Your task to perform on an android device: Open settings on Google Maps Image 0: 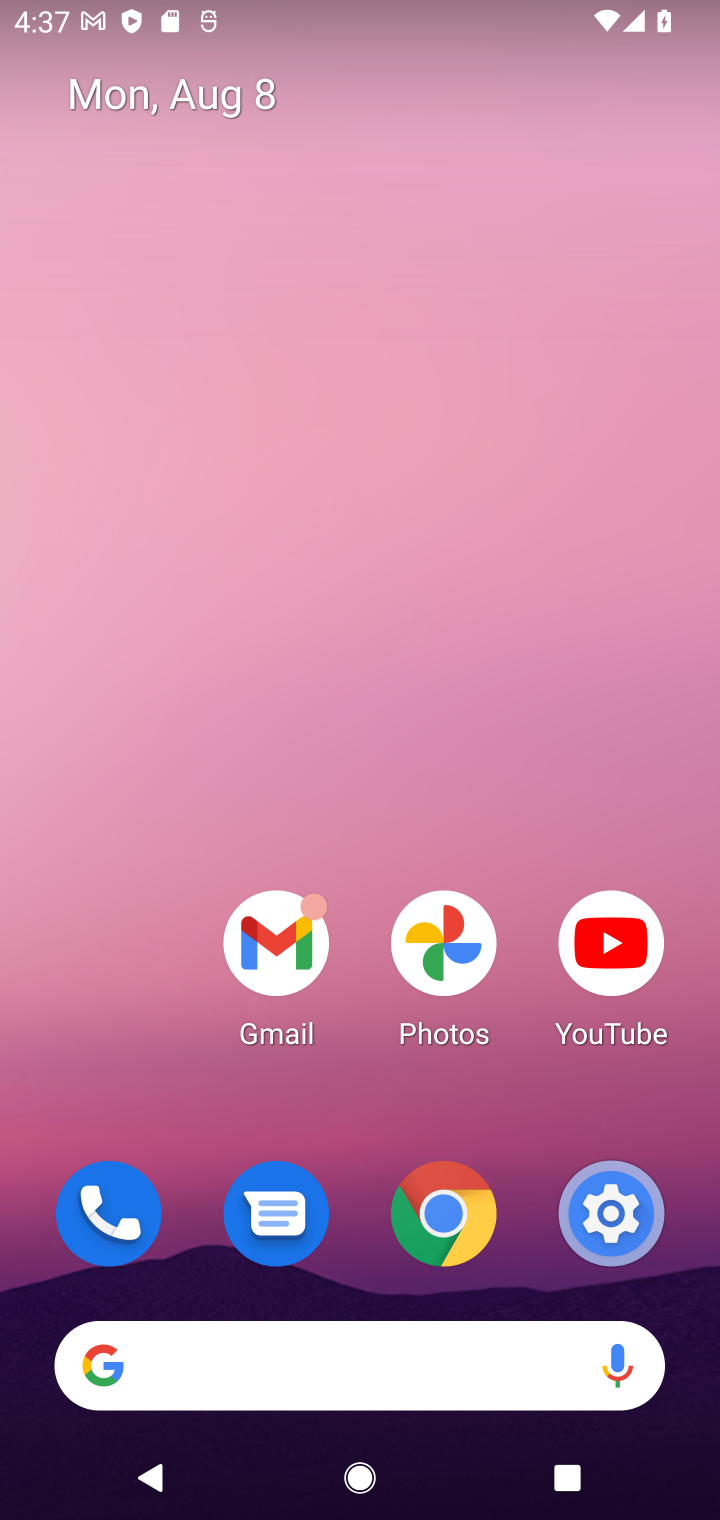
Step 0: drag from (301, 1113) to (267, 284)
Your task to perform on an android device: Open settings on Google Maps Image 1: 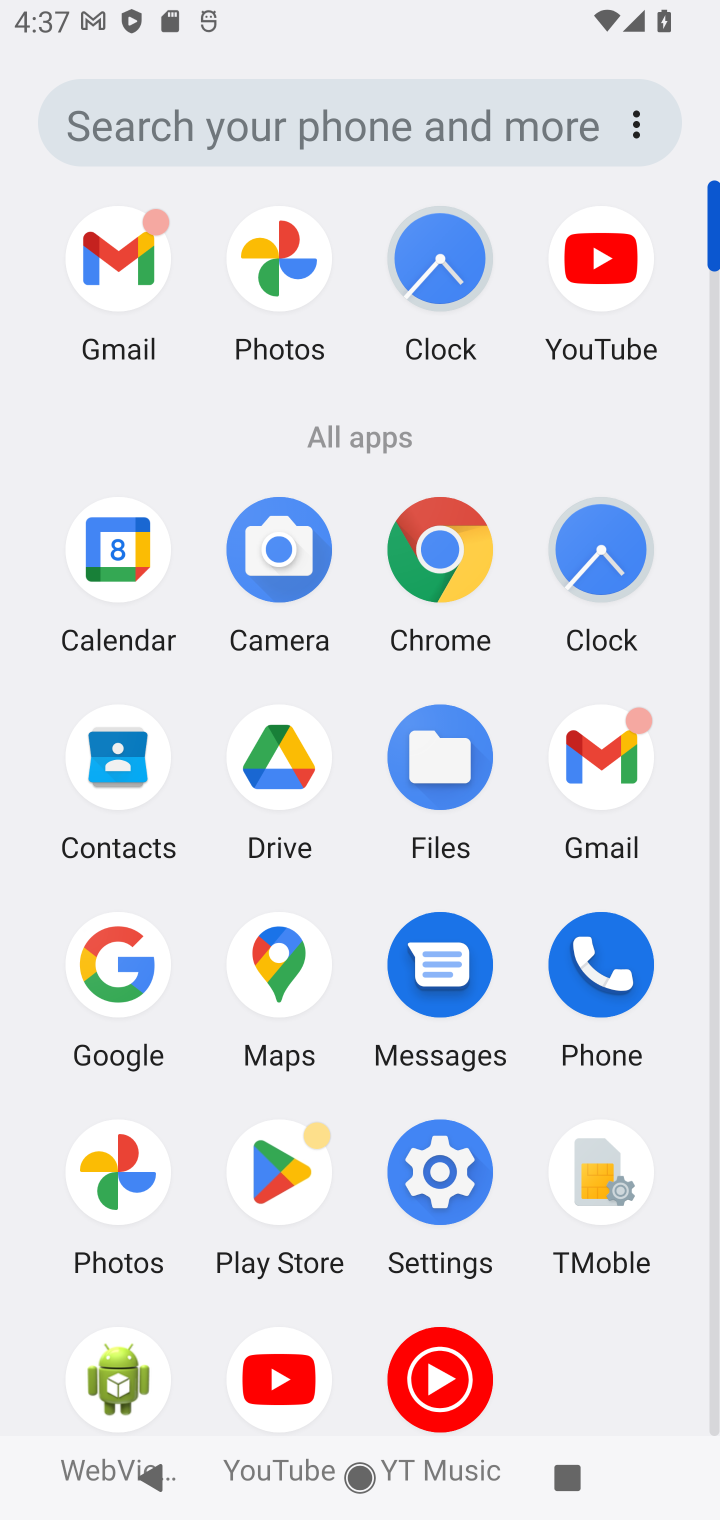
Step 1: click (270, 963)
Your task to perform on an android device: Open settings on Google Maps Image 2: 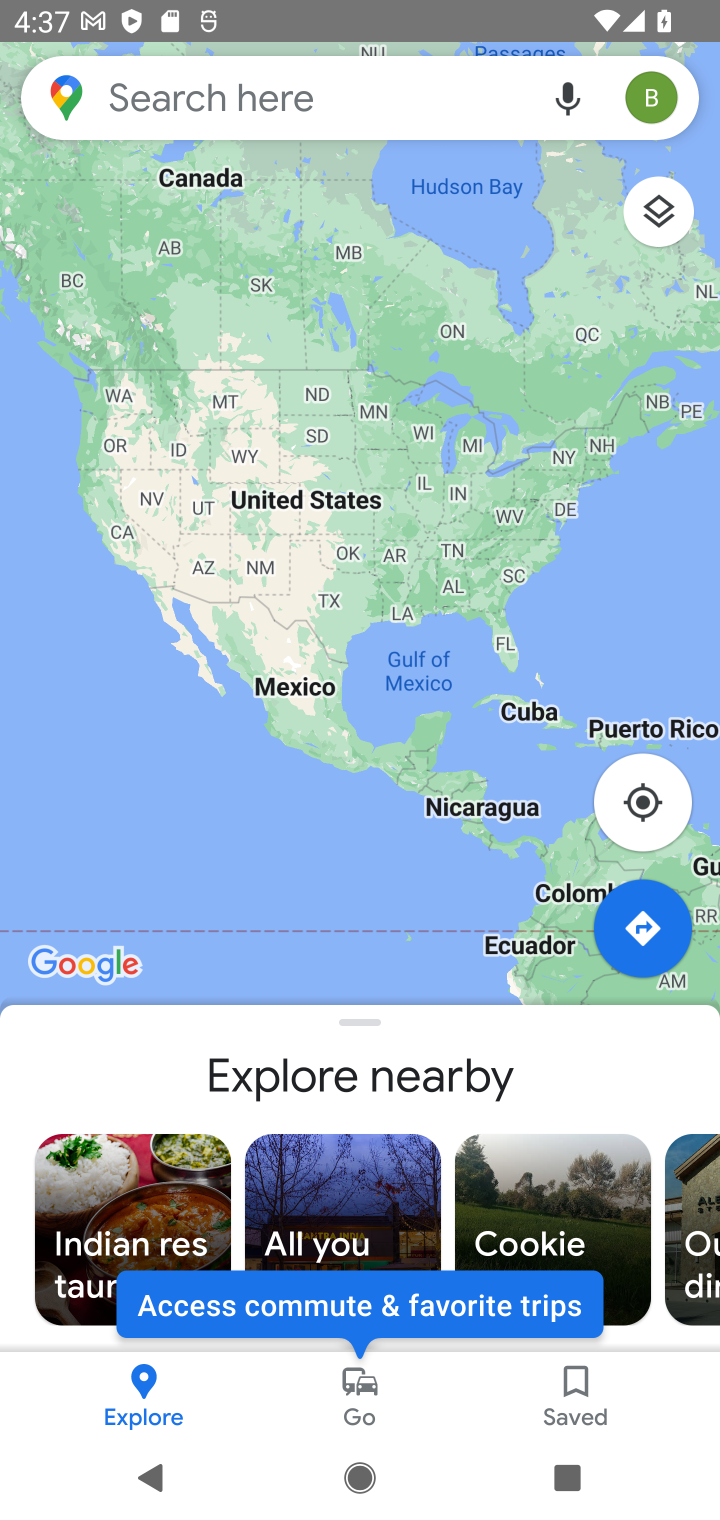
Step 2: click (656, 107)
Your task to perform on an android device: Open settings on Google Maps Image 3: 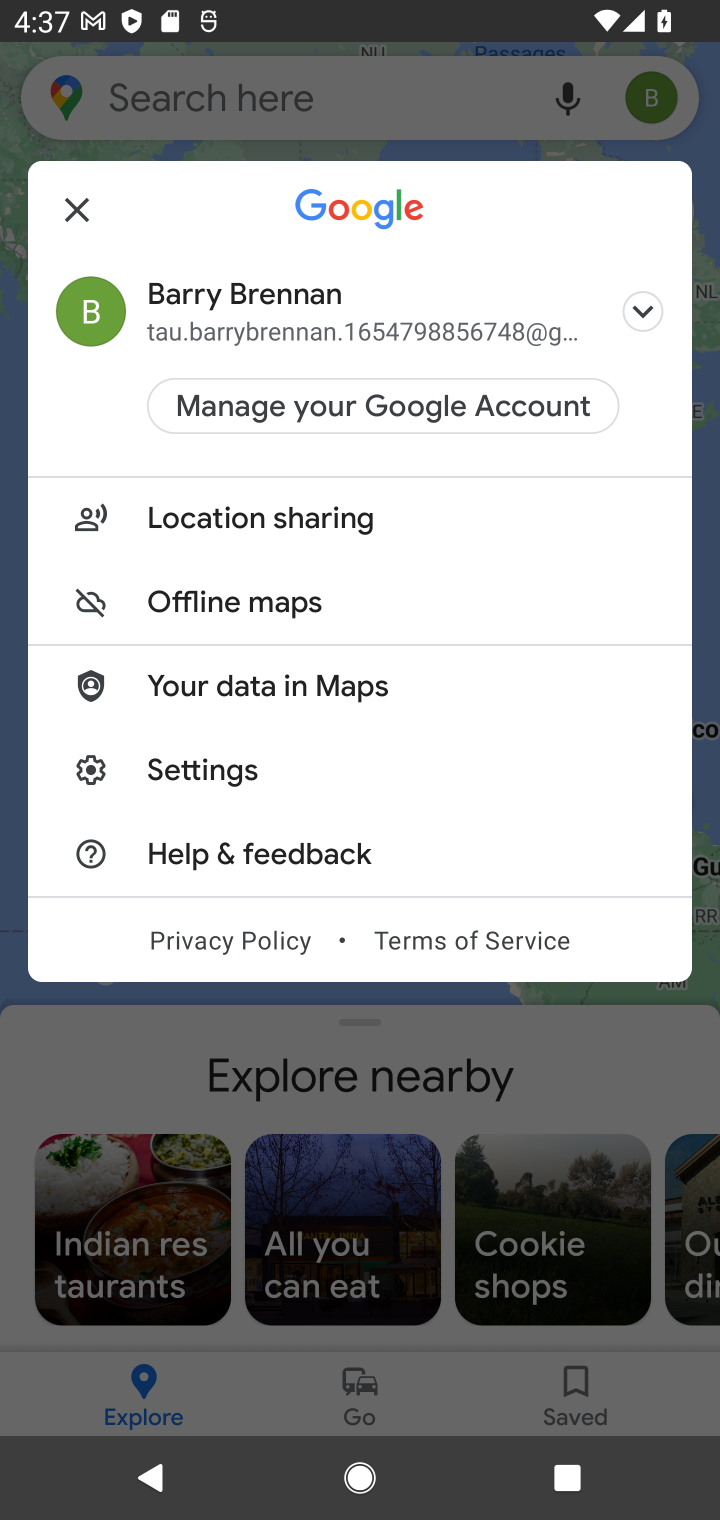
Step 3: click (229, 768)
Your task to perform on an android device: Open settings on Google Maps Image 4: 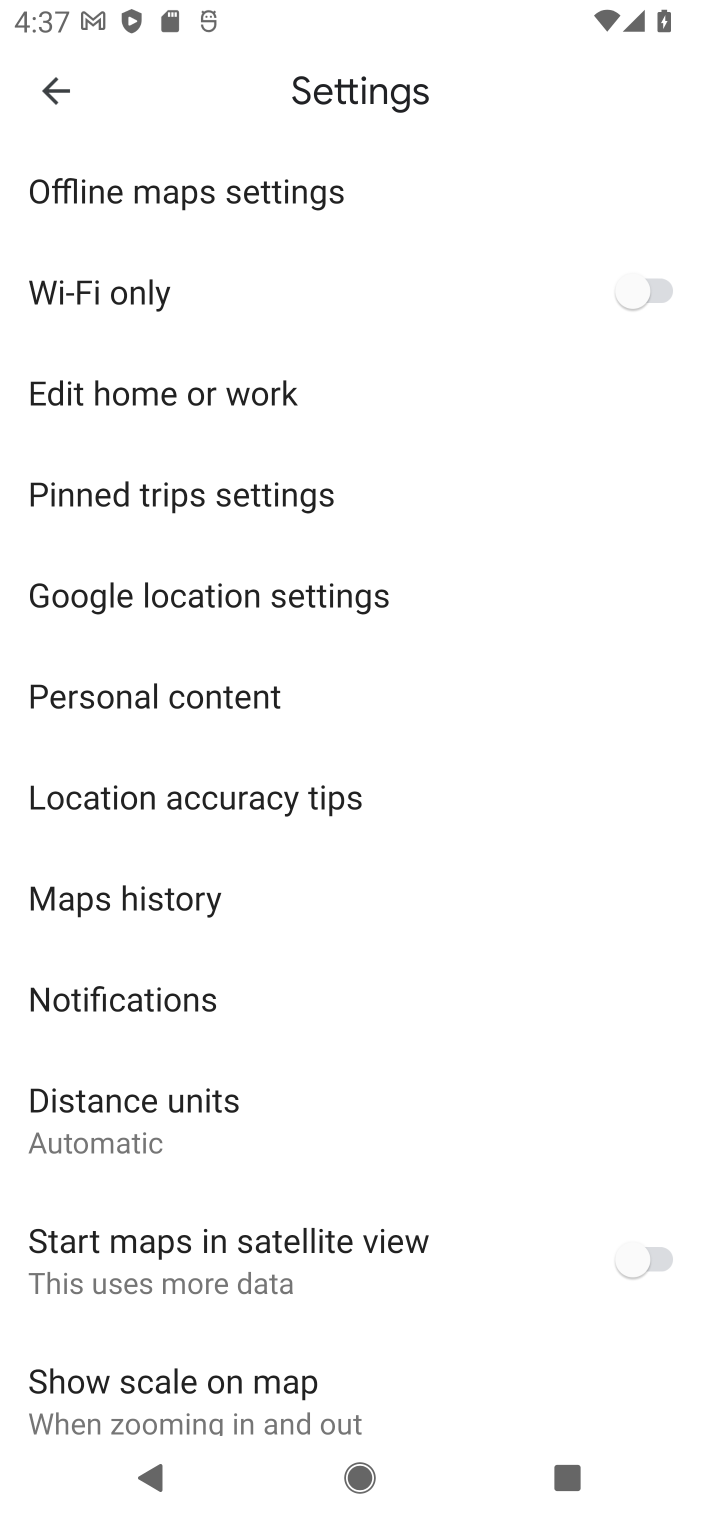
Step 4: task complete